Your task to perform on an android device: Search for vegetarian restaurants on Maps Image 0: 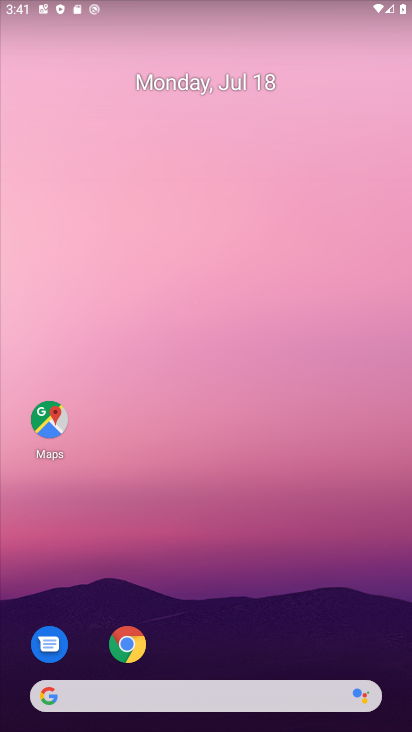
Step 0: click (48, 421)
Your task to perform on an android device: Search for vegetarian restaurants on Maps Image 1: 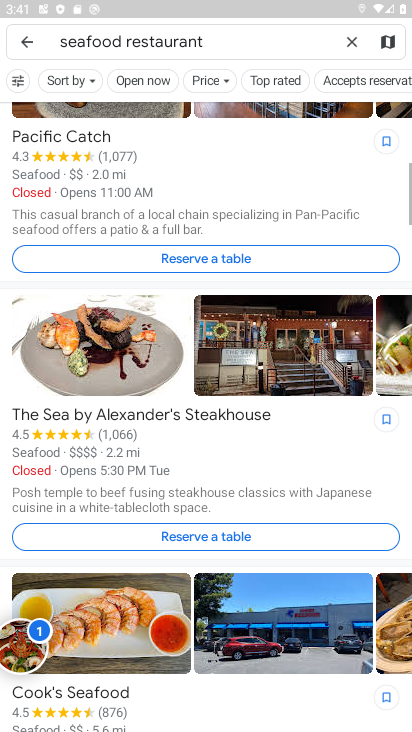
Step 1: click (350, 38)
Your task to perform on an android device: Search for vegetarian restaurants on Maps Image 2: 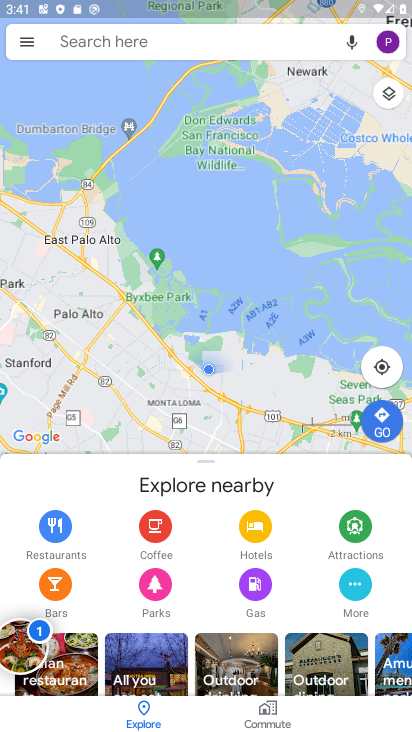
Step 2: click (107, 39)
Your task to perform on an android device: Search for vegetarian restaurants on Maps Image 3: 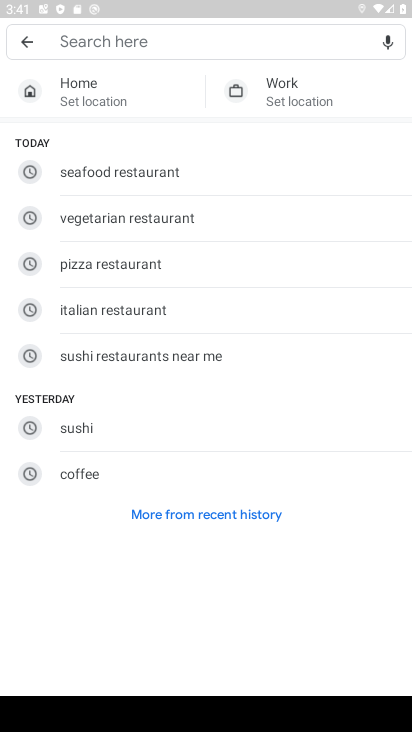
Step 3: type "vegetarian restaurants"
Your task to perform on an android device: Search for vegetarian restaurants on Maps Image 4: 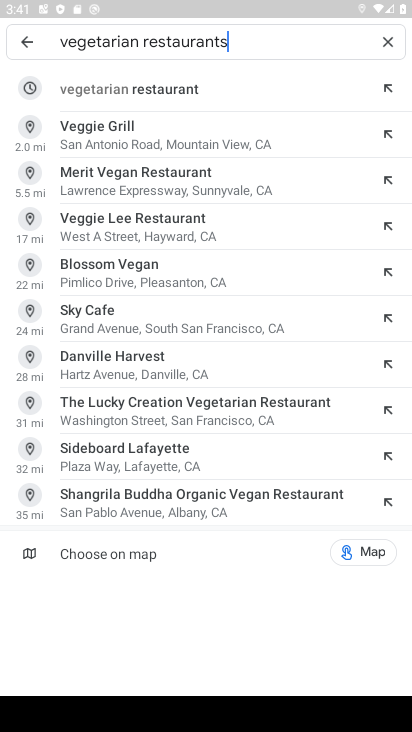
Step 4: click (101, 87)
Your task to perform on an android device: Search for vegetarian restaurants on Maps Image 5: 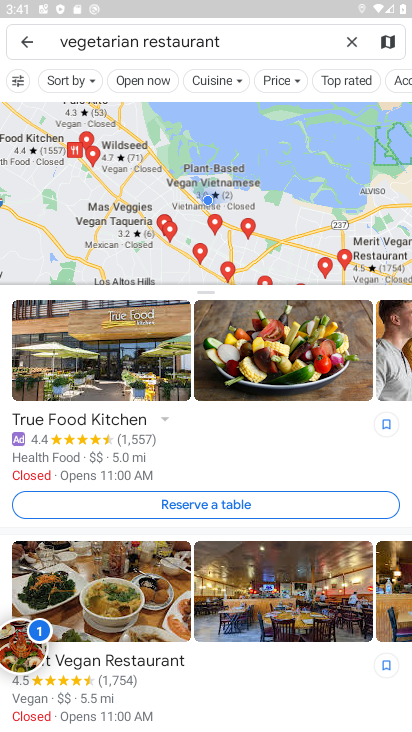
Step 5: task complete